Your task to perform on an android device: change notifications settings Image 0: 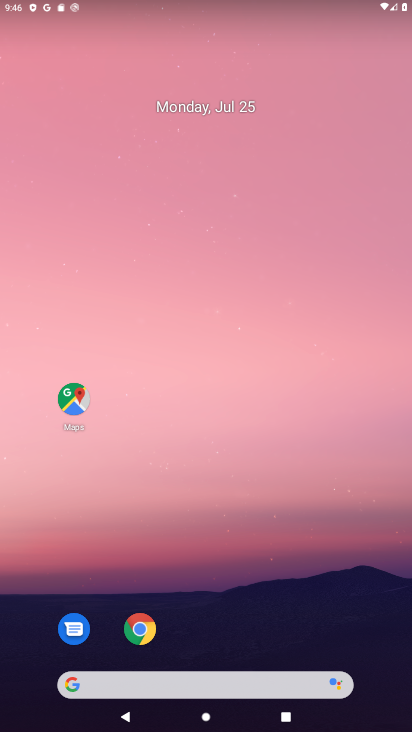
Step 0: drag from (224, 636) to (229, 352)
Your task to perform on an android device: change notifications settings Image 1: 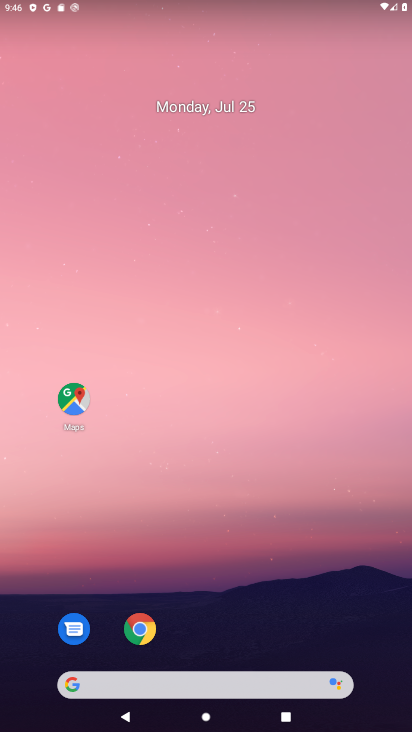
Step 1: drag from (234, 609) to (319, 155)
Your task to perform on an android device: change notifications settings Image 2: 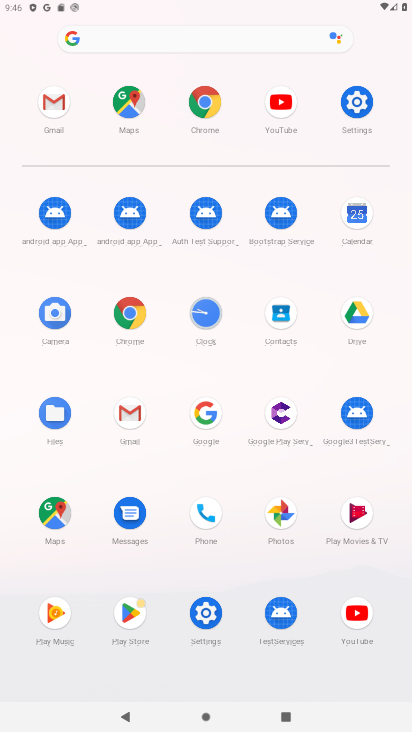
Step 2: click (348, 103)
Your task to perform on an android device: change notifications settings Image 3: 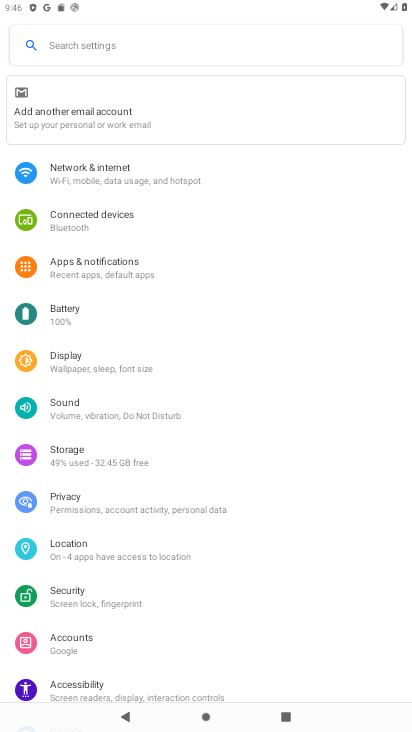
Step 3: click (143, 276)
Your task to perform on an android device: change notifications settings Image 4: 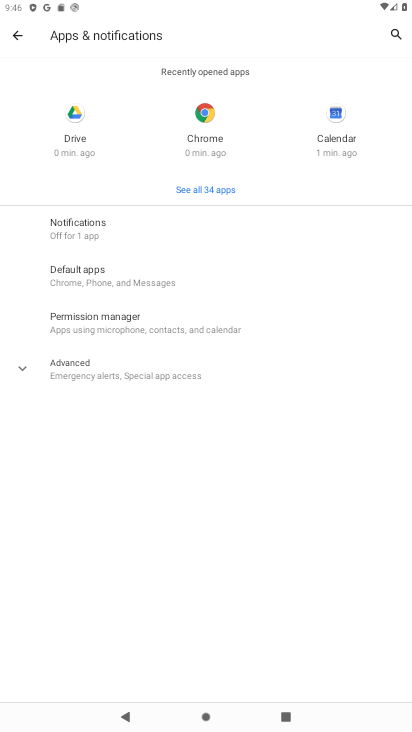
Step 4: click (130, 388)
Your task to perform on an android device: change notifications settings Image 5: 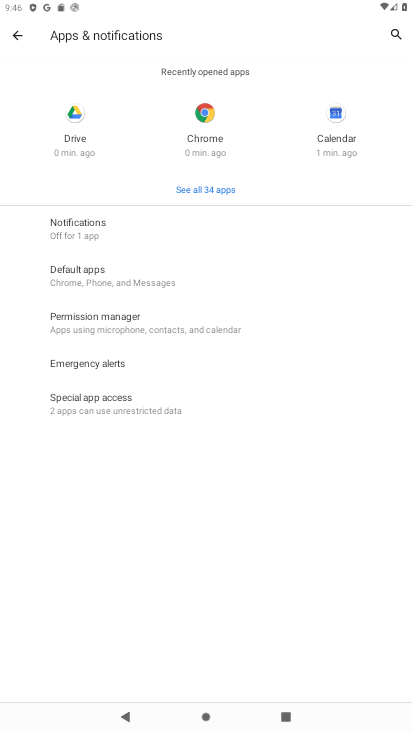
Step 5: click (103, 239)
Your task to perform on an android device: change notifications settings Image 6: 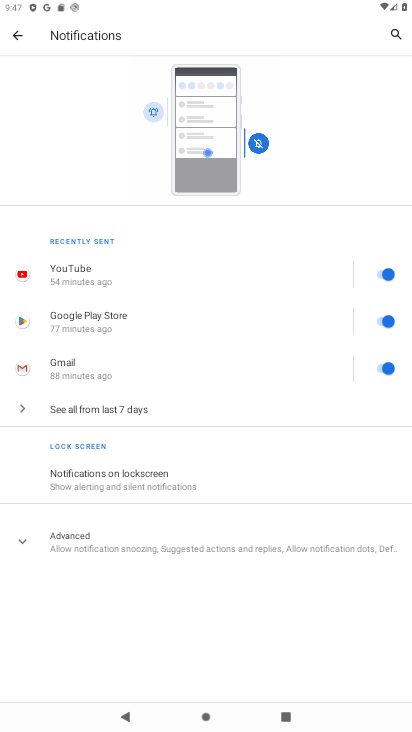
Step 6: click (213, 527)
Your task to perform on an android device: change notifications settings Image 7: 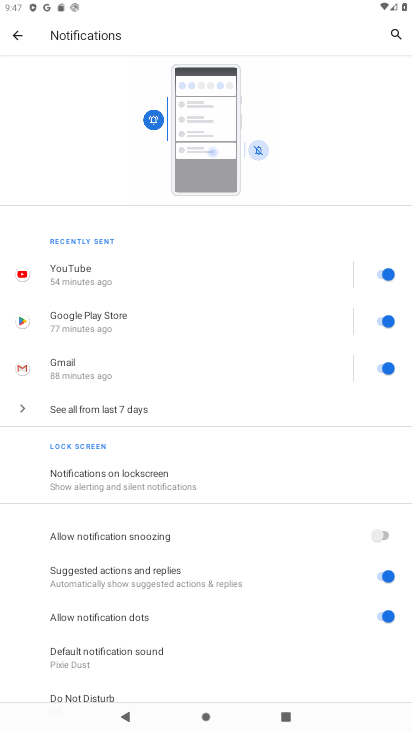
Step 7: click (378, 538)
Your task to perform on an android device: change notifications settings Image 8: 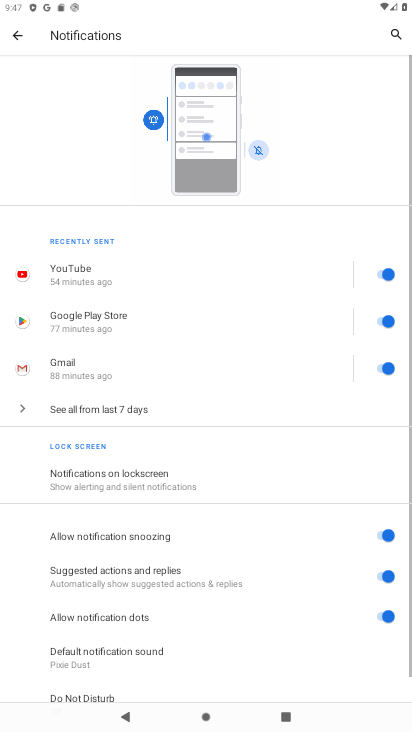
Step 8: click (388, 618)
Your task to perform on an android device: change notifications settings Image 9: 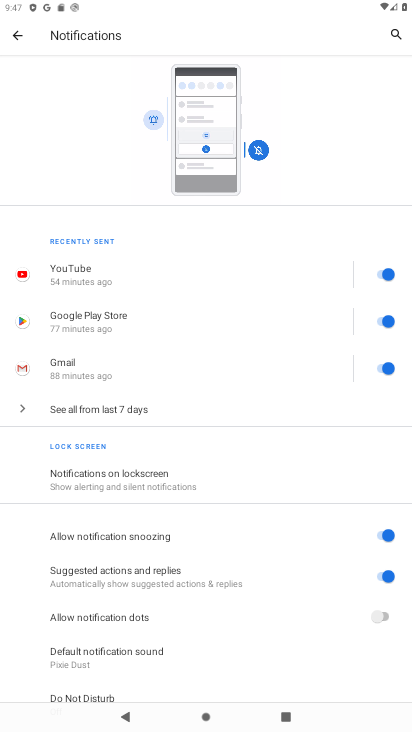
Step 9: task complete